Your task to perform on an android device: turn on wifi Image 0: 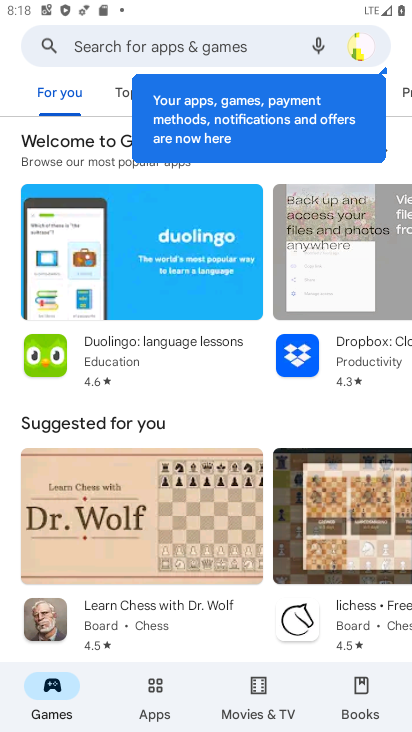
Step 0: press home button
Your task to perform on an android device: turn on wifi Image 1: 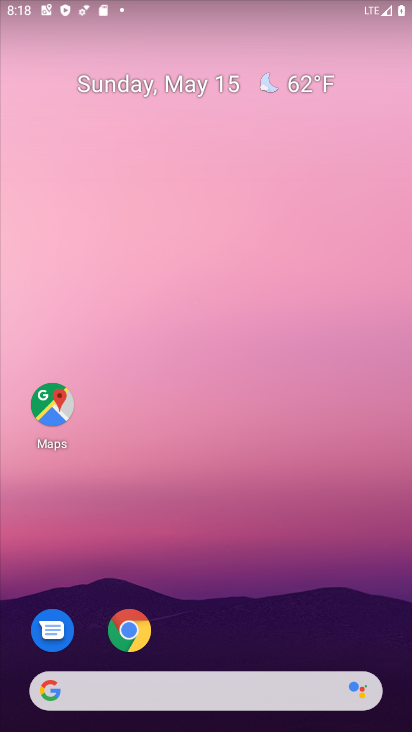
Step 1: drag from (227, 642) to (277, 37)
Your task to perform on an android device: turn on wifi Image 2: 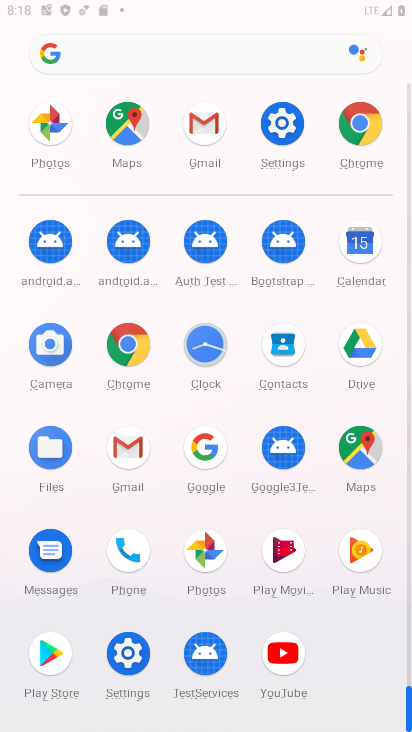
Step 2: click (278, 132)
Your task to perform on an android device: turn on wifi Image 3: 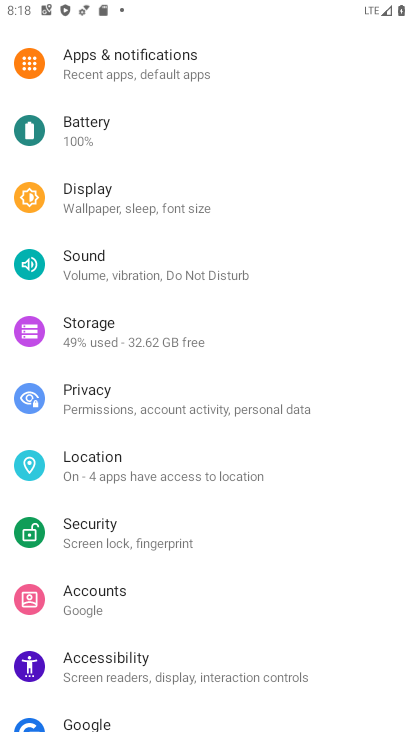
Step 3: drag from (162, 122) to (122, 624)
Your task to perform on an android device: turn on wifi Image 4: 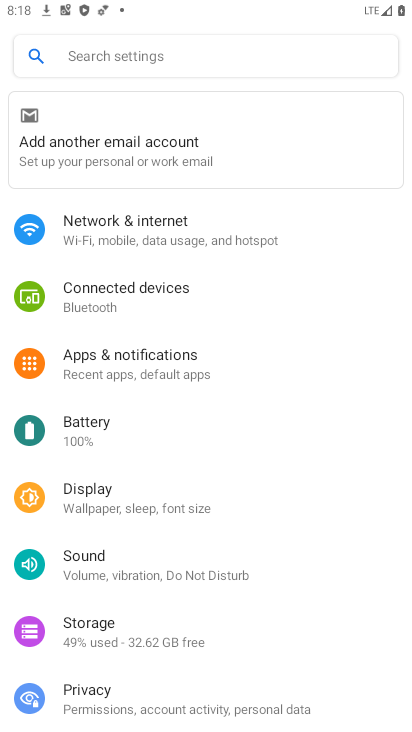
Step 4: click (187, 233)
Your task to perform on an android device: turn on wifi Image 5: 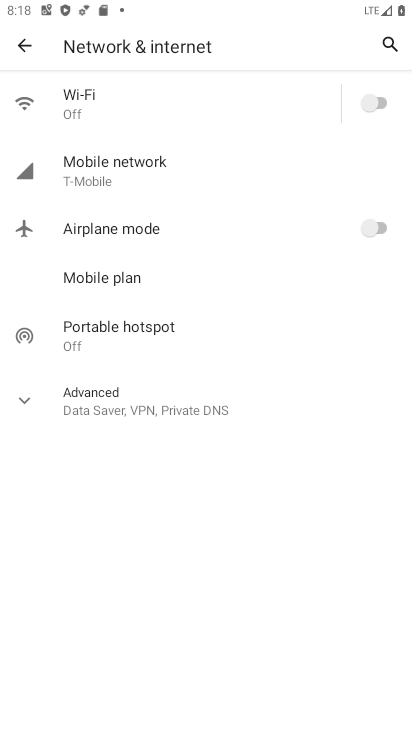
Step 5: click (389, 95)
Your task to perform on an android device: turn on wifi Image 6: 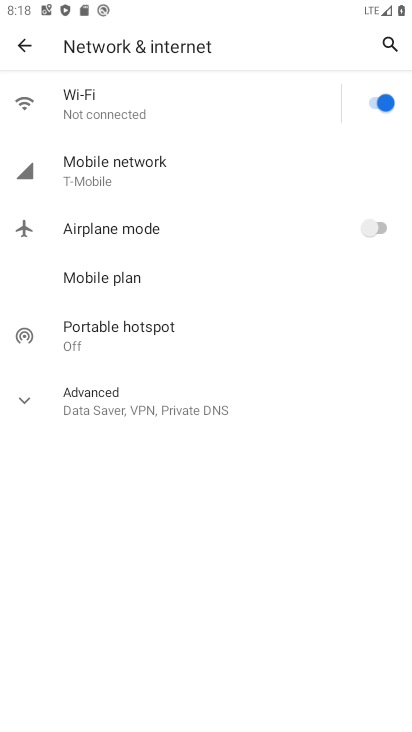
Step 6: task complete